Your task to perform on an android device: Open my contact list Image 0: 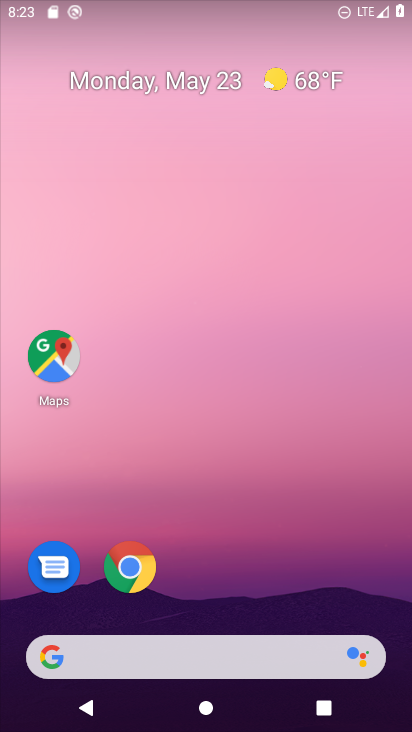
Step 0: drag from (353, 237) to (375, 188)
Your task to perform on an android device: Open my contact list Image 1: 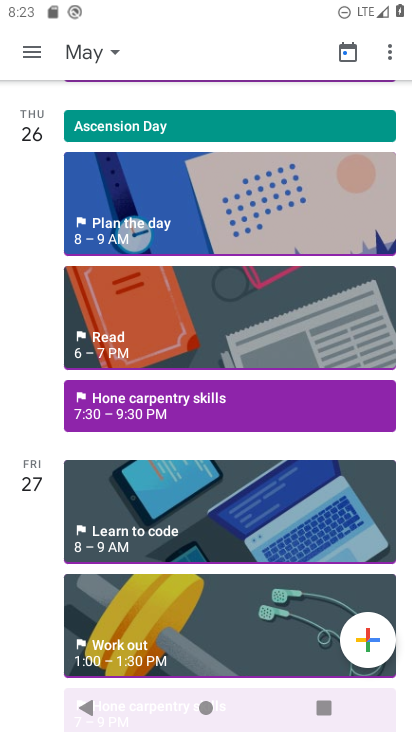
Step 1: press home button
Your task to perform on an android device: Open my contact list Image 2: 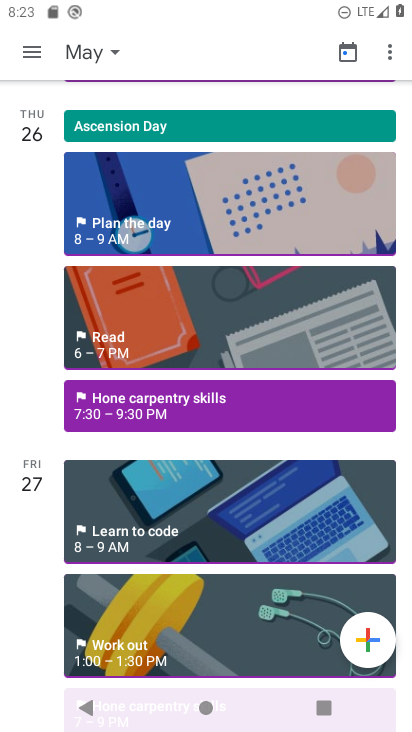
Step 2: drag from (375, 188) to (409, 641)
Your task to perform on an android device: Open my contact list Image 3: 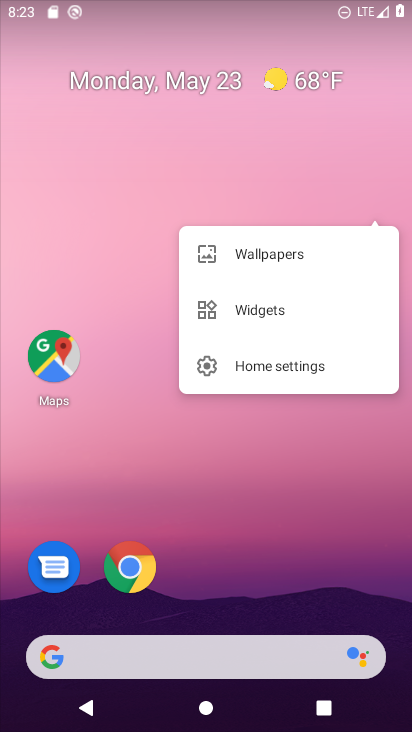
Step 3: drag from (200, 604) to (341, 85)
Your task to perform on an android device: Open my contact list Image 4: 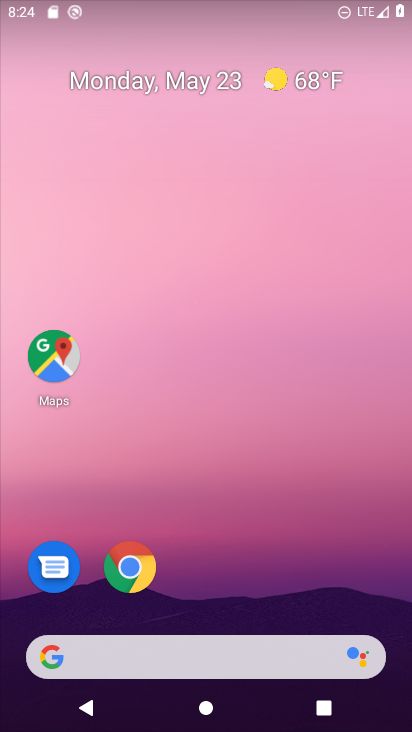
Step 4: drag from (221, 563) to (113, 33)
Your task to perform on an android device: Open my contact list Image 5: 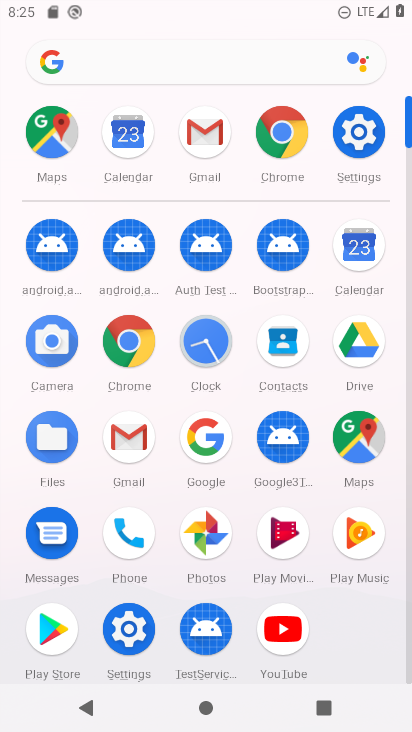
Step 5: click (295, 340)
Your task to perform on an android device: Open my contact list Image 6: 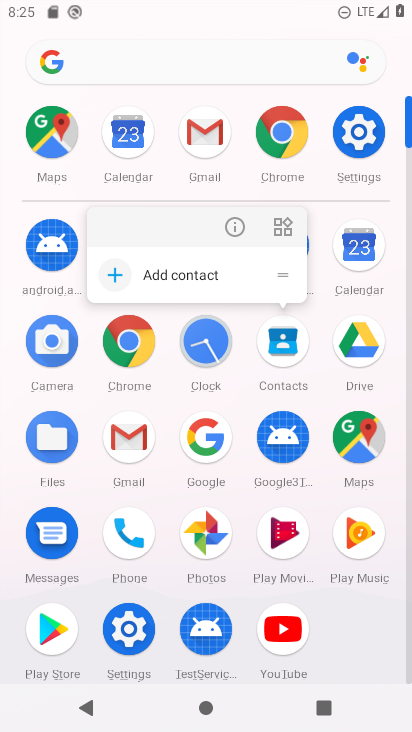
Step 6: click (246, 216)
Your task to perform on an android device: Open my contact list Image 7: 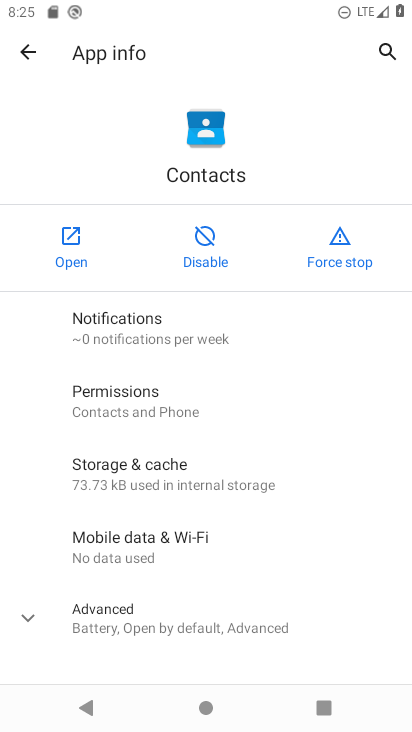
Step 7: click (71, 242)
Your task to perform on an android device: Open my contact list Image 8: 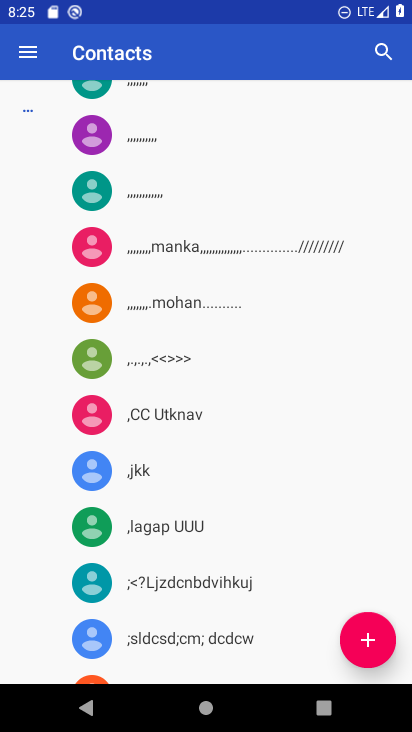
Step 8: task complete